Your task to perform on an android device: Go to Reddit.com Image 0: 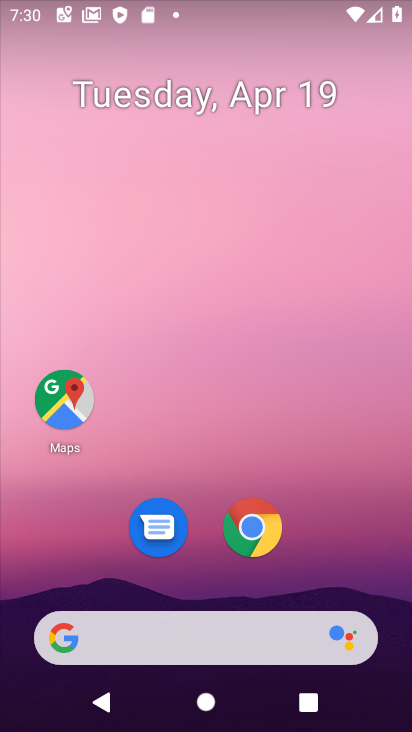
Step 0: drag from (376, 562) to (385, 99)
Your task to perform on an android device: Go to Reddit.com Image 1: 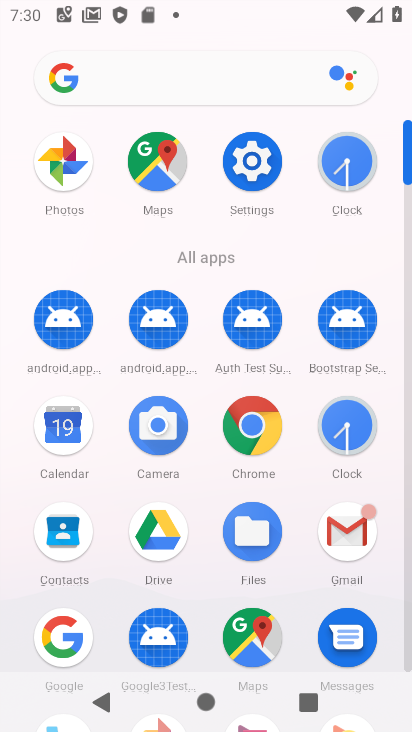
Step 1: click (256, 432)
Your task to perform on an android device: Go to Reddit.com Image 2: 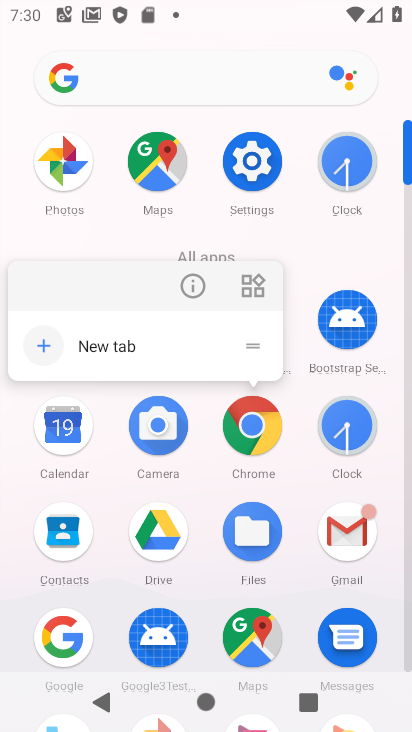
Step 2: click (255, 428)
Your task to perform on an android device: Go to Reddit.com Image 3: 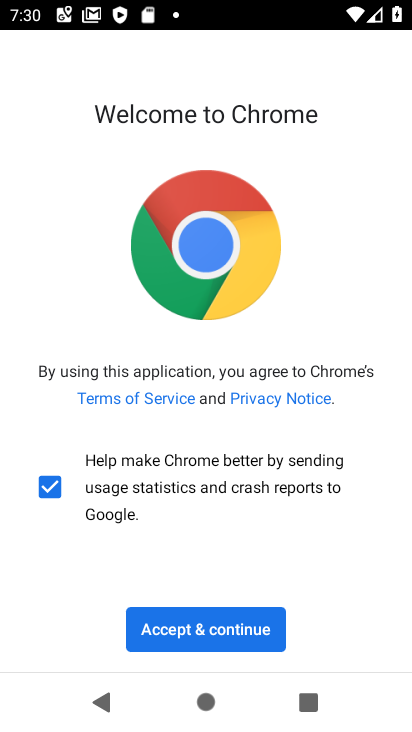
Step 3: click (208, 629)
Your task to perform on an android device: Go to Reddit.com Image 4: 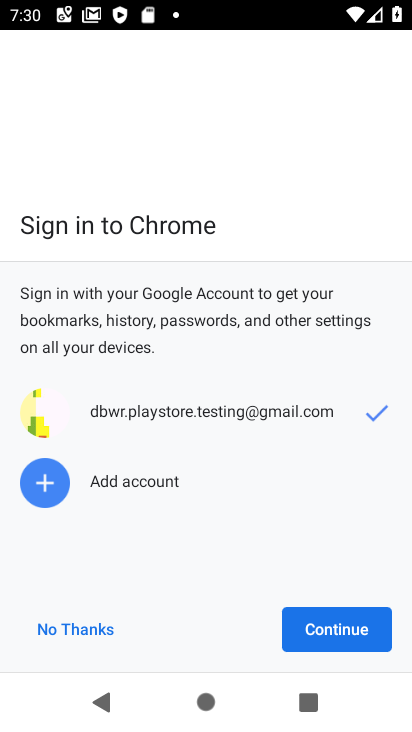
Step 4: click (338, 633)
Your task to perform on an android device: Go to Reddit.com Image 5: 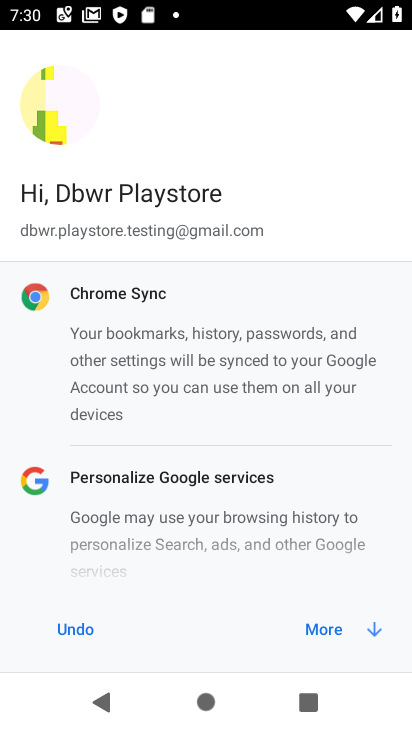
Step 5: click (334, 631)
Your task to perform on an android device: Go to Reddit.com Image 6: 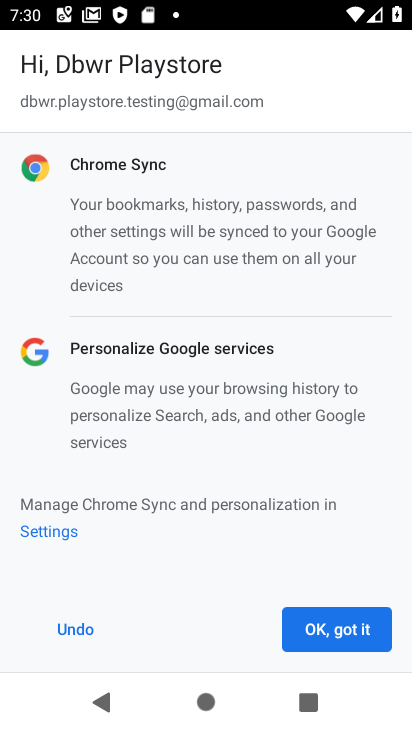
Step 6: click (329, 628)
Your task to perform on an android device: Go to Reddit.com Image 7: 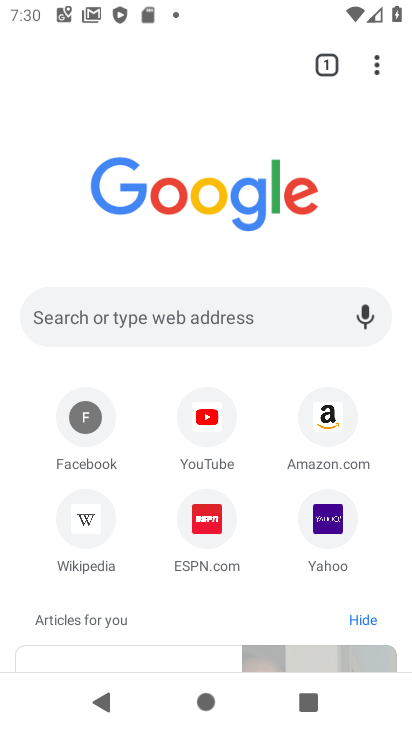
Step 7: click (261, 327)
Your task to perform on an android device: Go to Reddit.com Image 8: 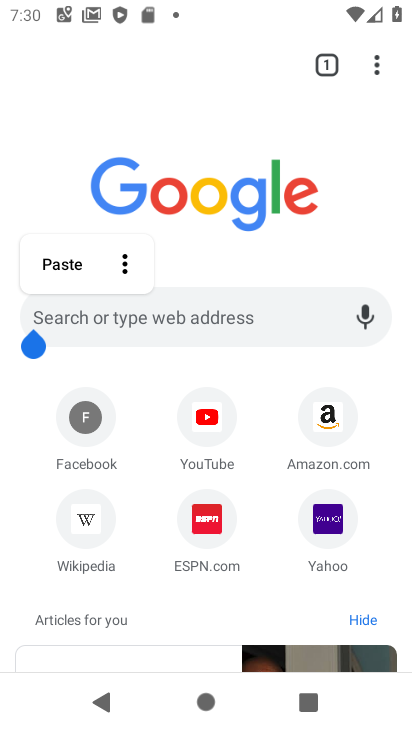
Step 8: click (232, 324)
Your task to perform on an android device: Go to Reddit.com Image 9: 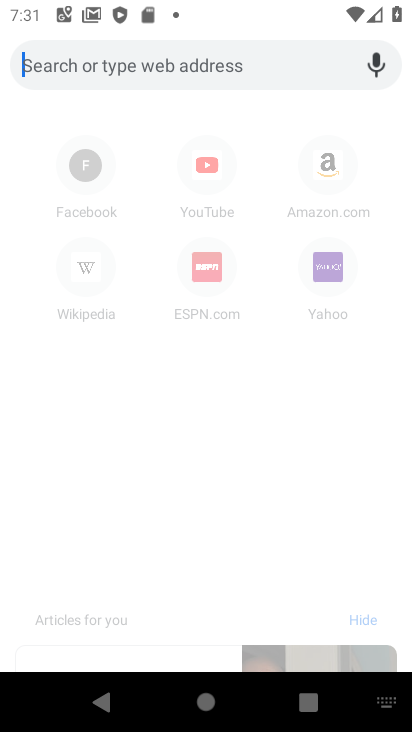
Step 9: type "reddit .com"
Your task to perform on an android device: Go to Reddit.com Image 10: 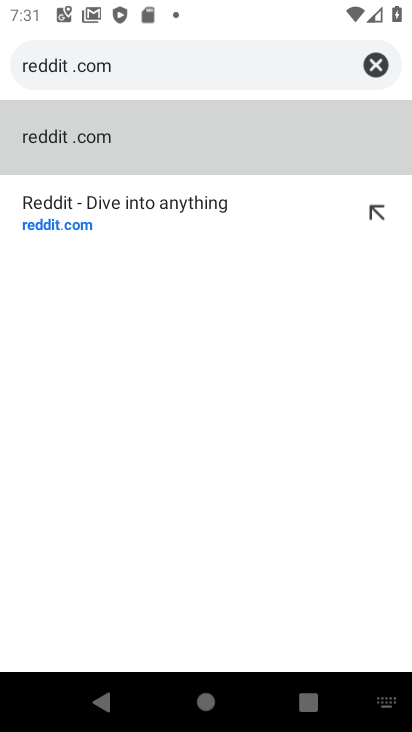
Step 10: click (30, 152)
Your task to perform on an android device: Go to Reddit.com Image 11: 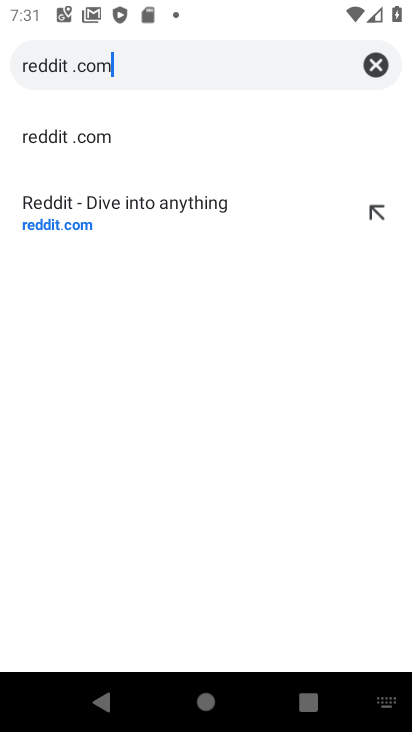
Step 11: click (50, 214)
Your task to perform on an android device: Go to Reddit.com Image 12: 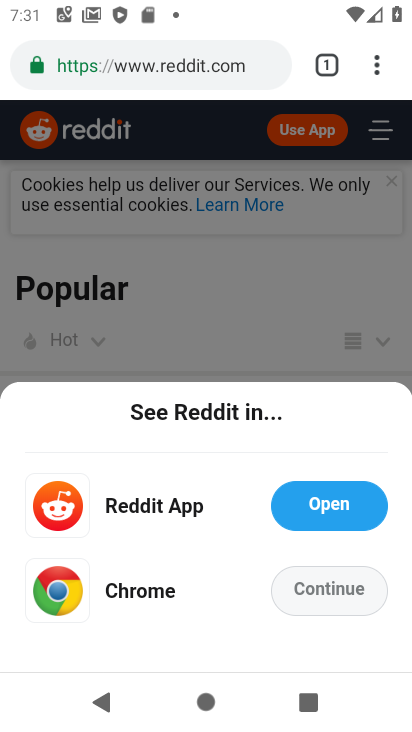
Step 12: task complete